Your task to perform on an android device: check battery use Image 0: 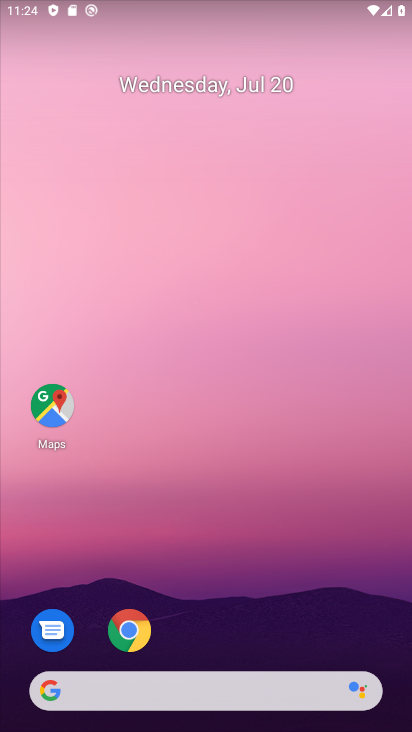
Step 0: drag from (82, 574) to (256, 156)
Your task to perform on an android device: check battery use Image 1: 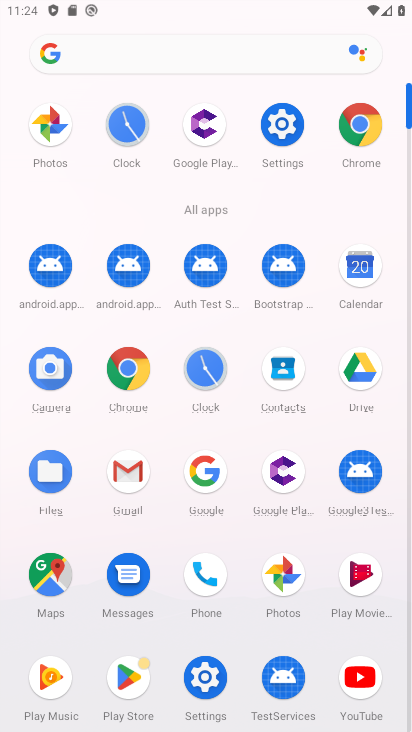
Step 1: click (213, 678)
Your task to perform on an android device: check battery use Image 2: 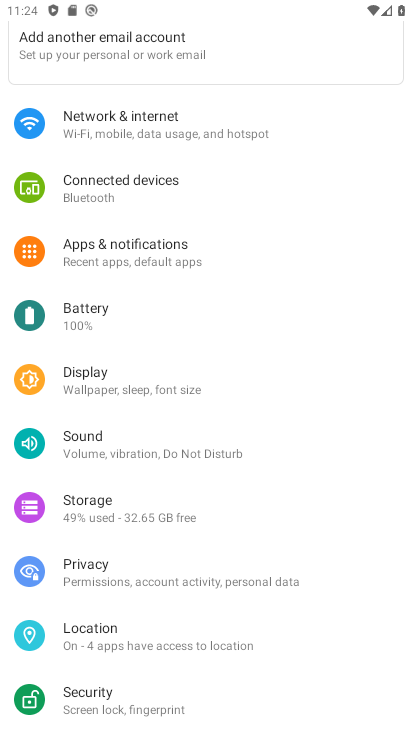
Step 2: click (181, 121)
Your task to perform on an android device: check battery use Image 3: 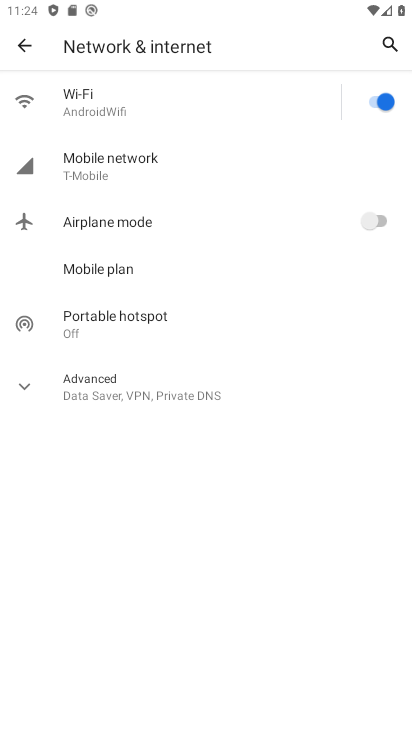
Step 3: click (24, 43)
Your task to perform on an android device: check battery use Image 4: 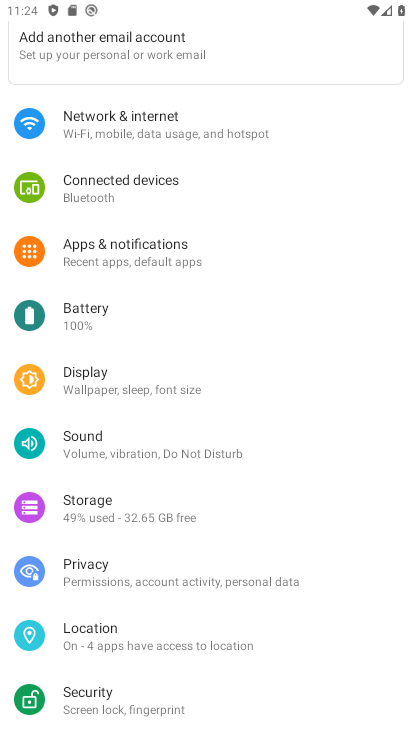
Step 4: click (98, 299)
Your task to perform on an android device: check battery use Image 5: 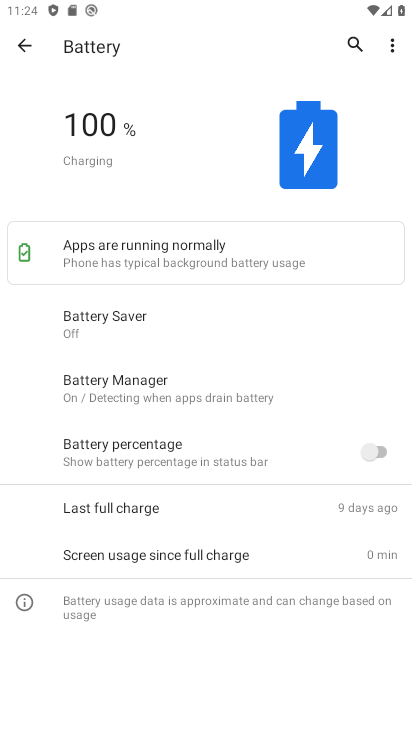
Step 5: task complete